Your task to perform on an android device: Open Android settings Image 0: 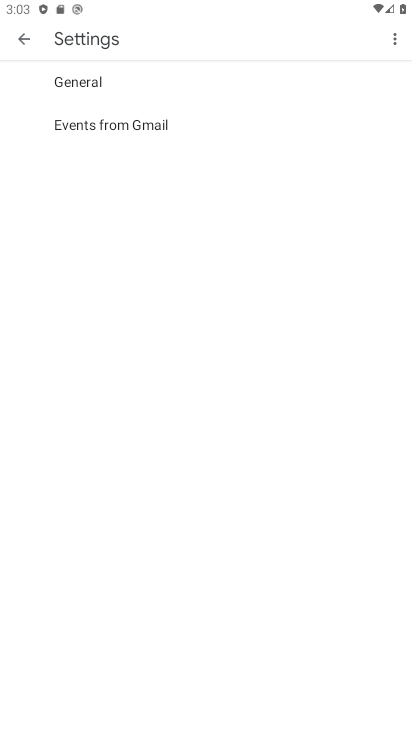
Step 0: press home button
Your task to perform on an android device: Open Android settings Image 1: 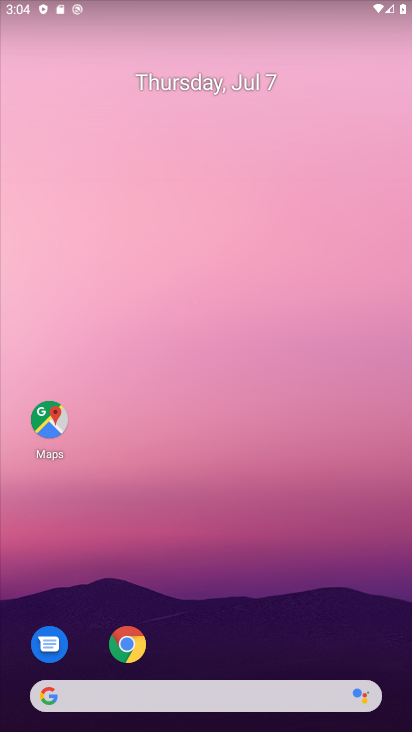
Step 1: drag from (215, 673) to (188, 613)
Your task to perform on an android device: Open Android settings Image 2: 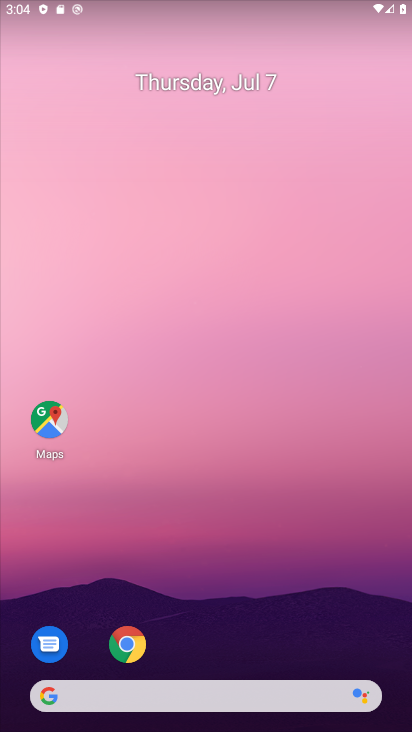
Step 2: drag from (210, 663) to (120, 39)
Your task to perform on an android device: Open Android settings Image 3: 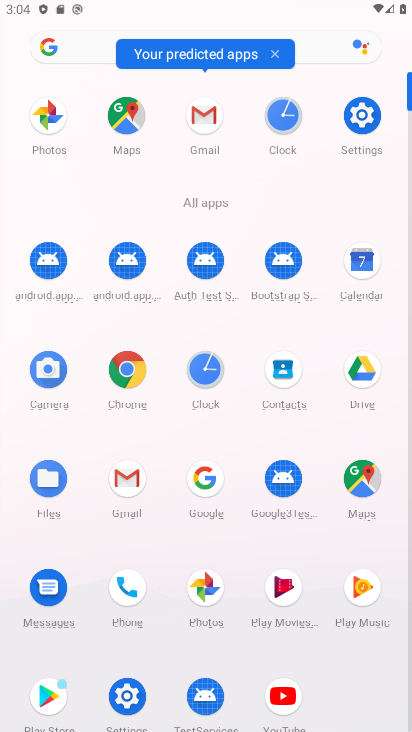
Step 3: click (127, 686)
Your task to perform on an android device: Open Android settings Image 4: 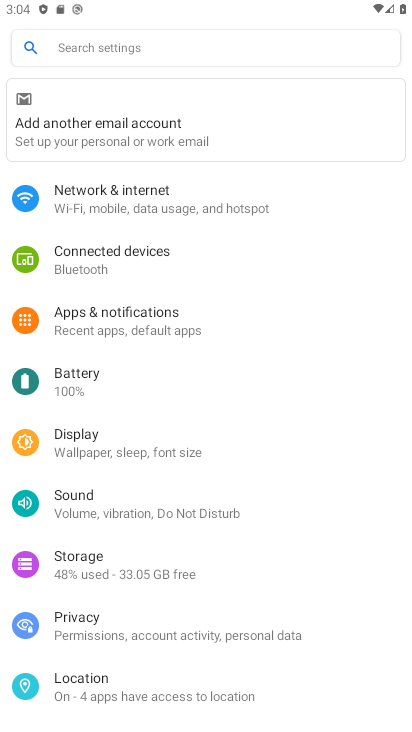
Step 4: drag from (158, 621) to (115, 7)
Your task to perform on an android device: Open Android settings Image 5: 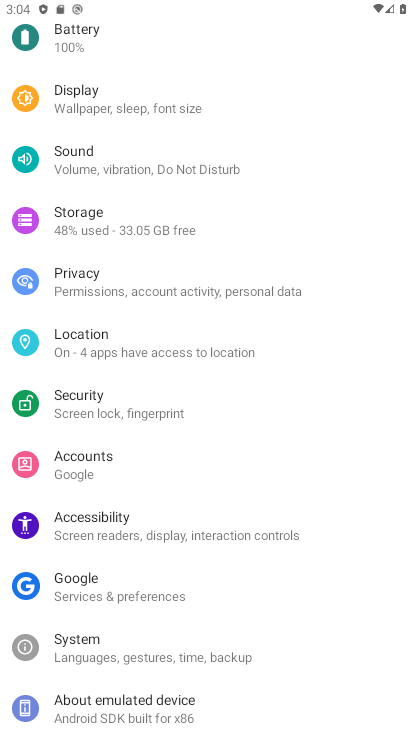
Step 5: click (144, 692)
Your task to perform on an android device: Open Android settings Image 6: 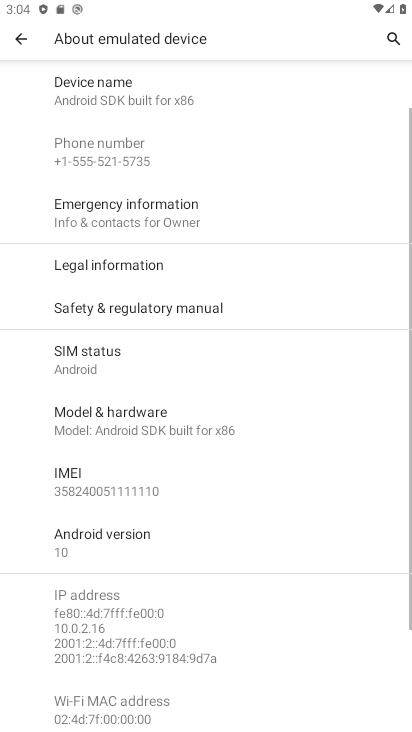
Step 6: click (104, 189)
Your task to perform on an android device: Open Android settings Image 7: 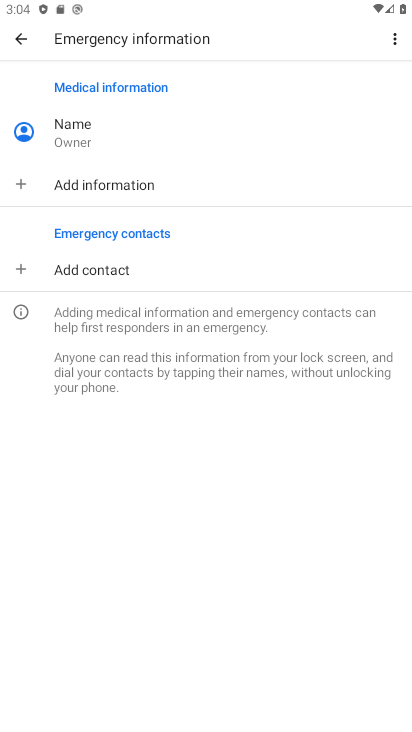
Step 7: drag from (206, 152) to (212, 193)
Your task to perform on an android device: Open Android settings Image 8: 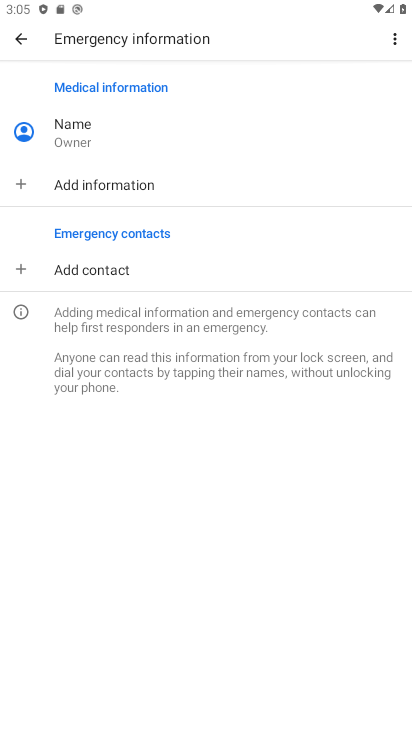
Step 8: click (23, 30)
Your task to perform on an android device: Open Android settings Image 9: 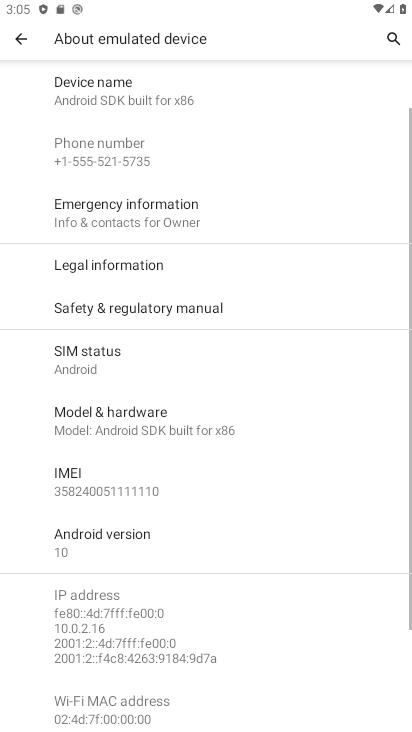
Step 9: click (23, 35)
Your task to perform on an android device: Open Android settings Image 10: 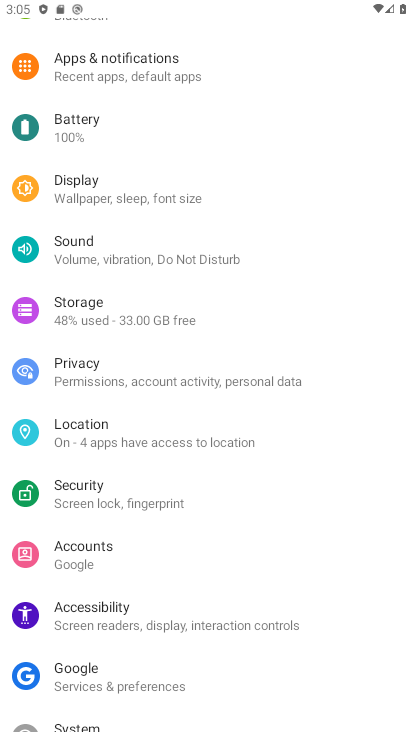
Step 10: drag from (205, 623) to (129, 30)
Your task to perform on an android device: Open Android settings Image 11: 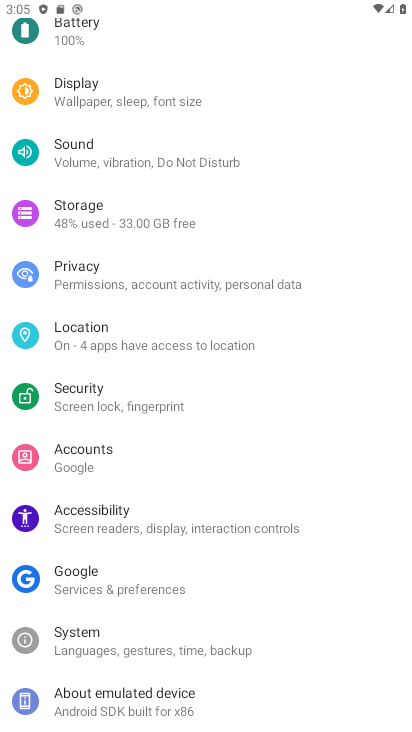
Step 11: click (132, 688)
Your task to perform on an android device: Open Android settings Image 12: 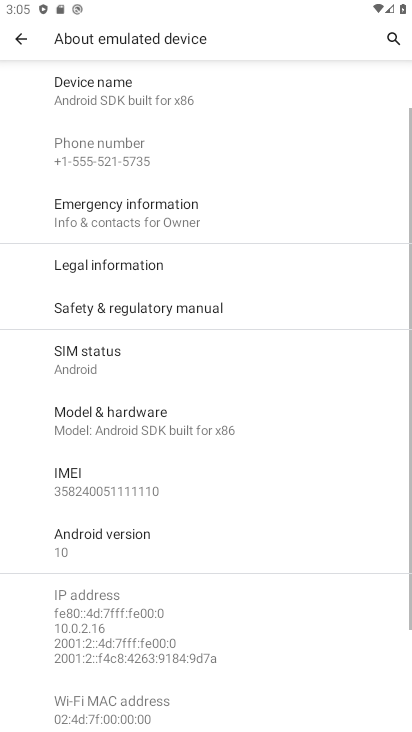
Step 12: task complete